Your task to perform on an android device: What's the weather? Image 0: 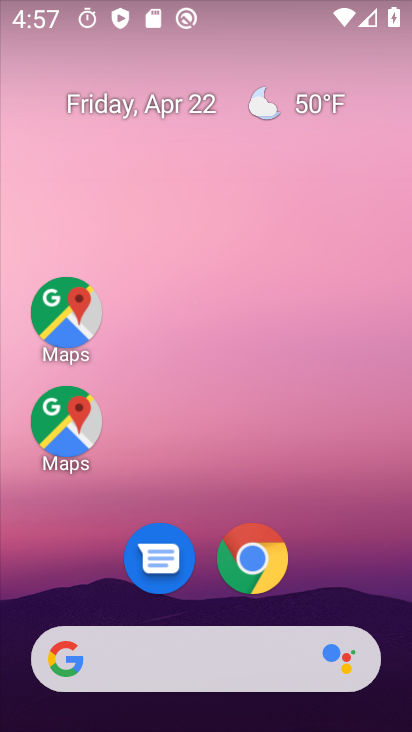
Step 0: drag from (346, 518) to (295, 142)
Your task to perform on an android device: What's the weather? Image 1: 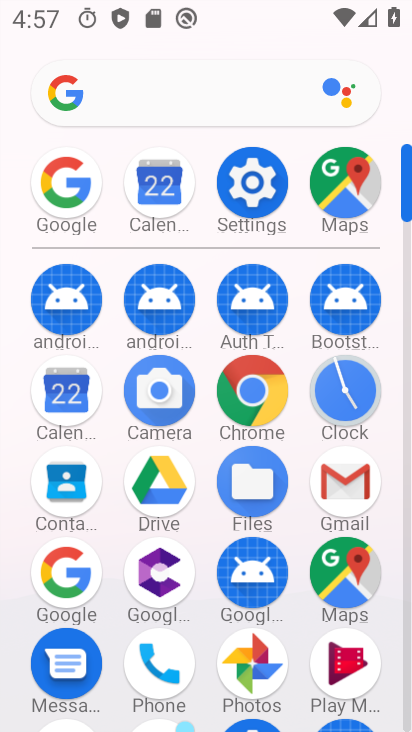
Step 1: click (69, 179)
Your task to perform on an android device: What's the weather? Image 2: 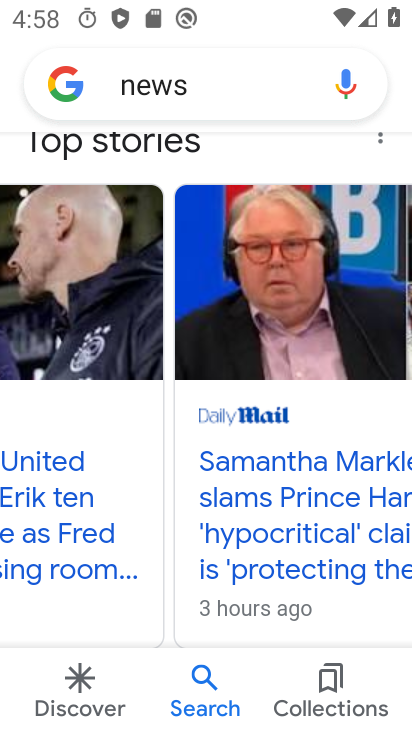
Step 2: click (203, 93)
Your task to perform on an android device: What's the weather? Image 3: 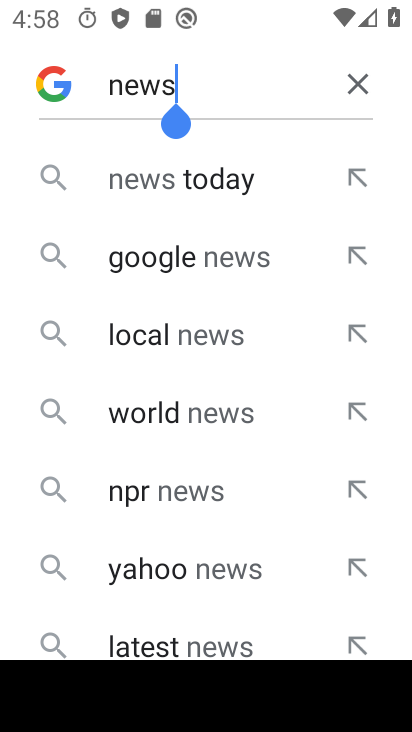
Step 3: click (367, 87)
Your task to perform on an android device: What's the weather? Image 4: 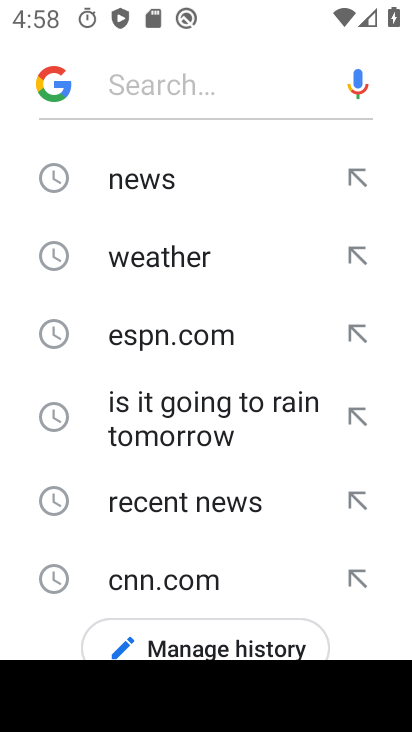
Step 4: click (206, 266)
Your task to perform on an android device: What's the weather? Image 5: 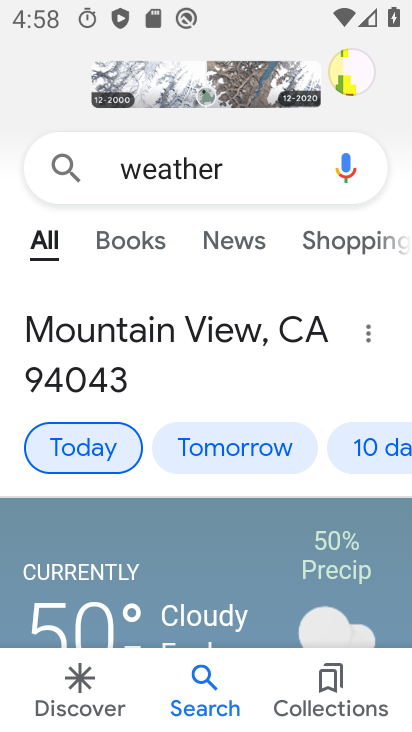
Step 5: task complete